Your task to perform on an android device: Clear all items from cart on ebay.com. Image 0: 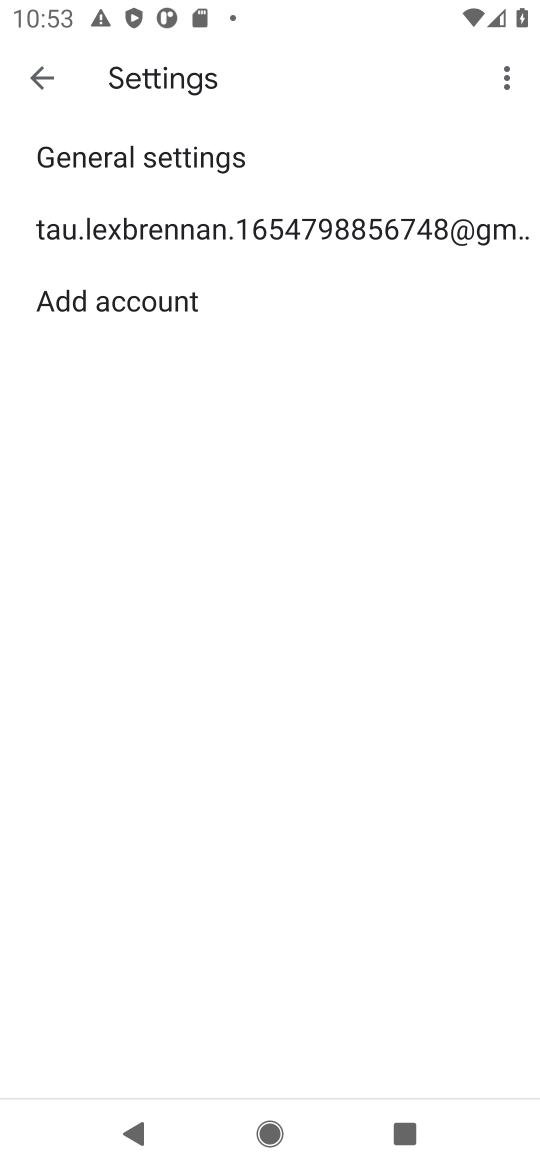
Step 0: press home button
Your task to perform on an android device: Clear all items from cart on ebay.com. Image 1: 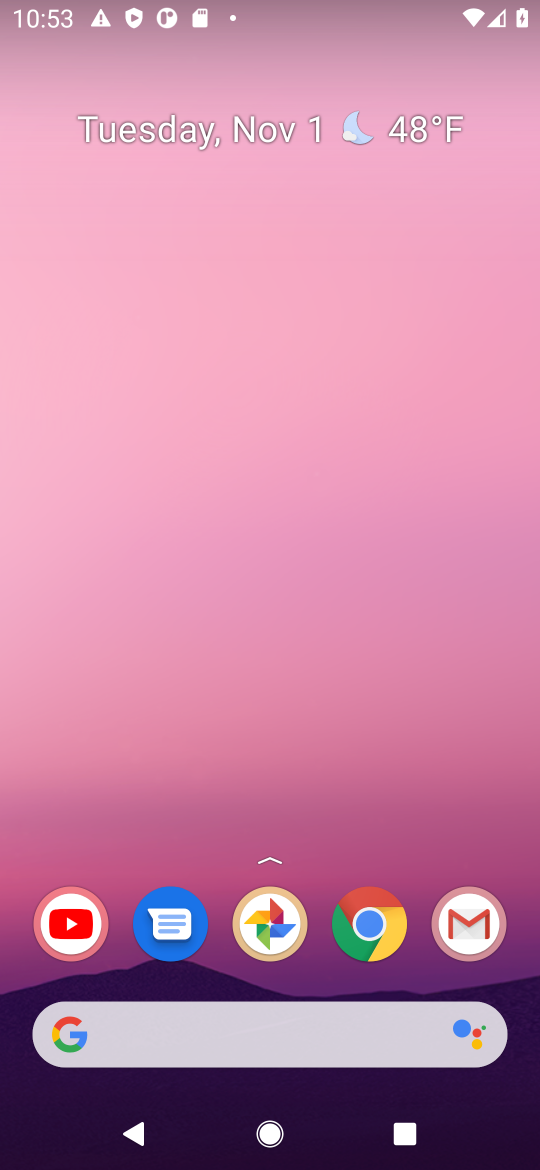
Step 1: click (384, 931)
Your task to perform on an android device: Clear all items from cart on ebay.com. Image 2: 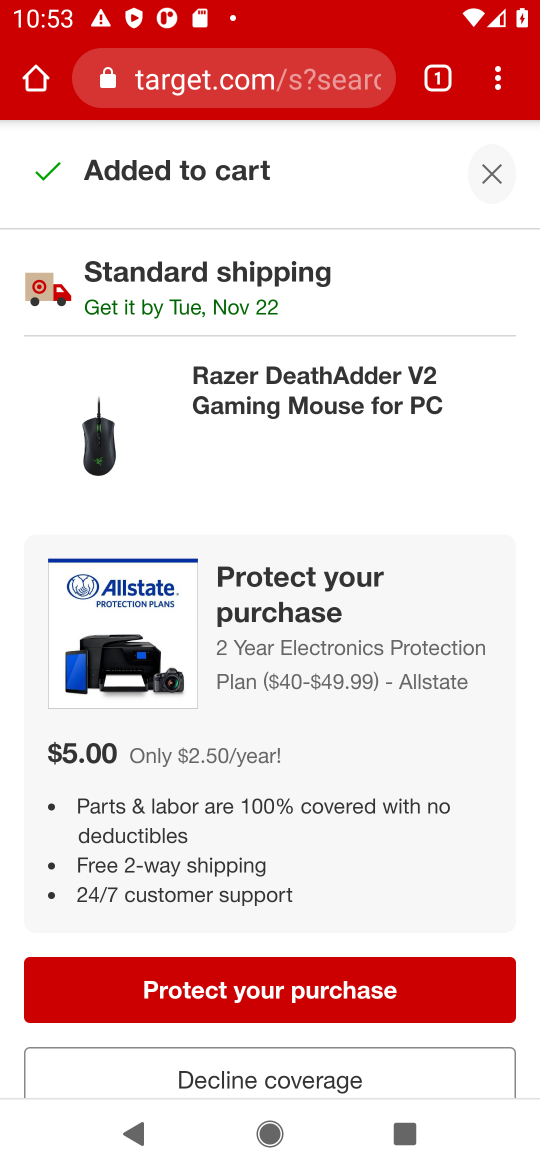
Step 2: click (286, 68)
Your task to perform on an android device: Clear all items from cart on ebay.com. Image 3: 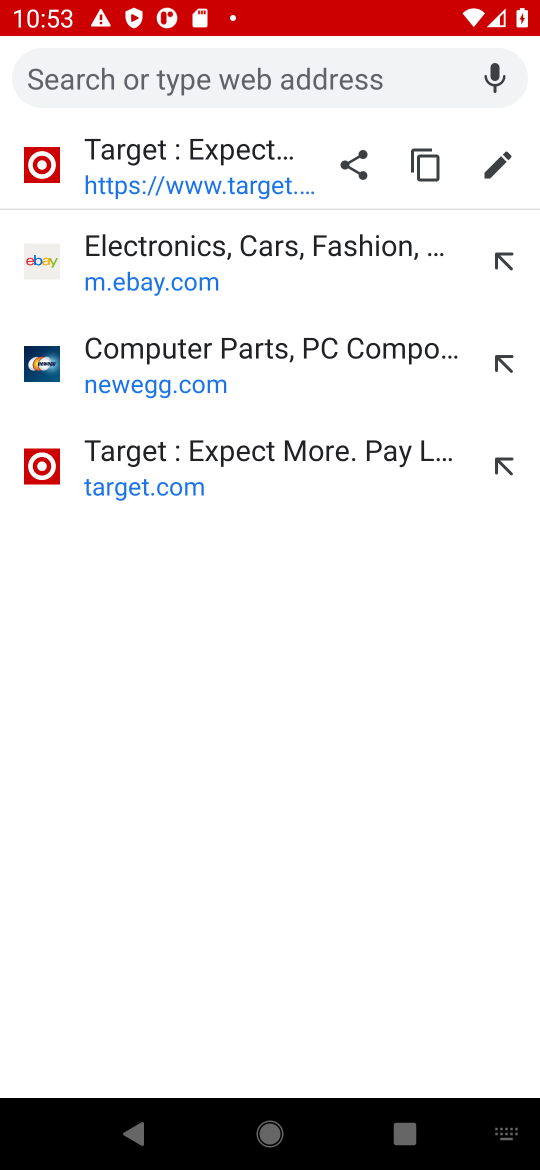
Step 3: type "ebay"
Your task to perform on an android device: Clear all items from cart on ebay.com. Image 4: 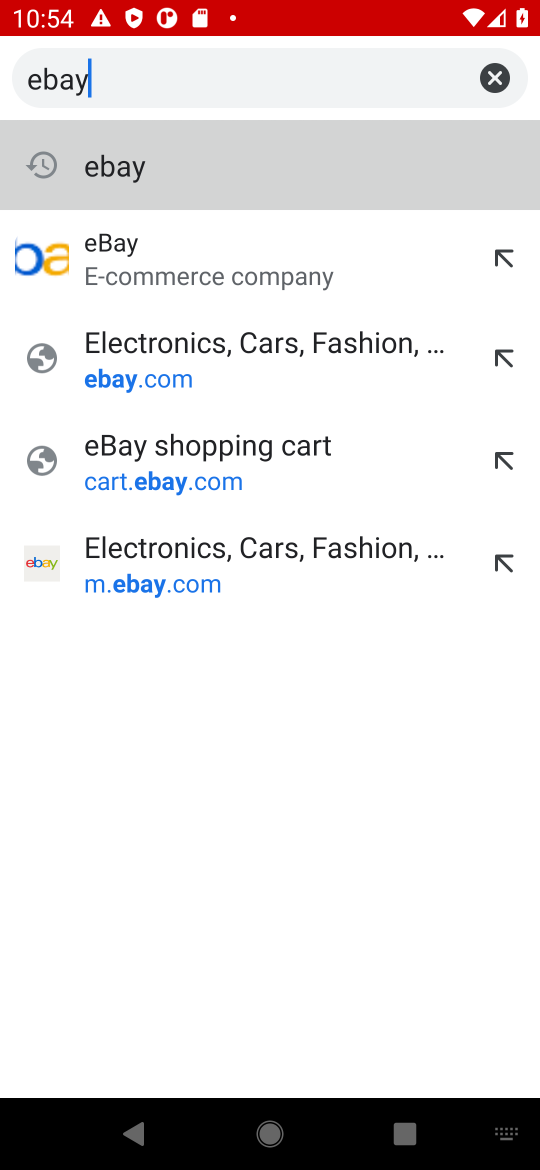
Step 4: click (131, 155)
Your task to perform on an android device: Clear all items from cart on ebay.com. Image 5: 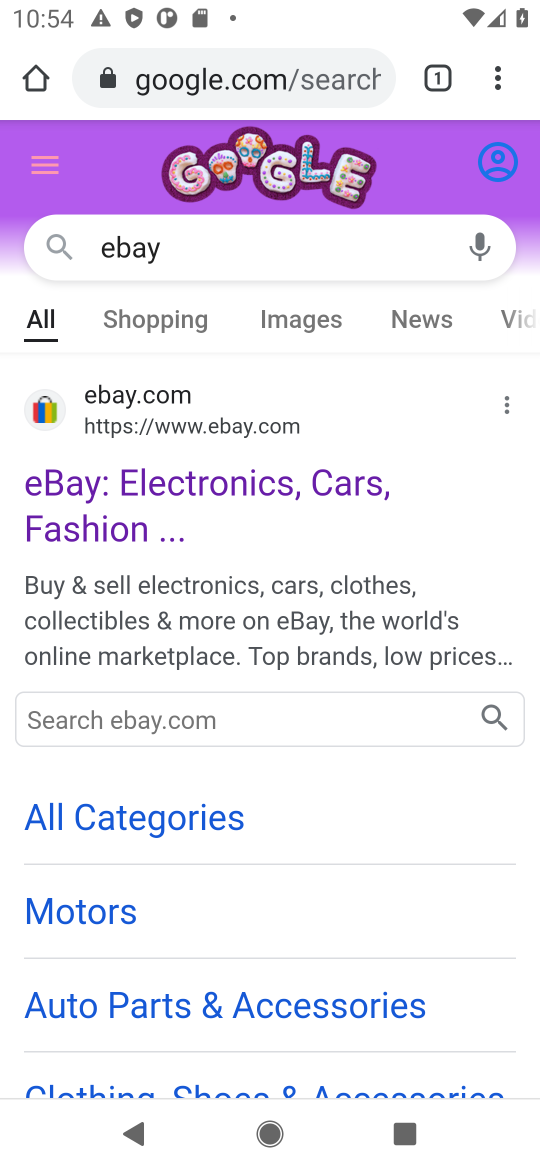
Step 5: click (246, 488)
Your task to perform on an android device: Clear all items from cart on ebay.com. Image 6: 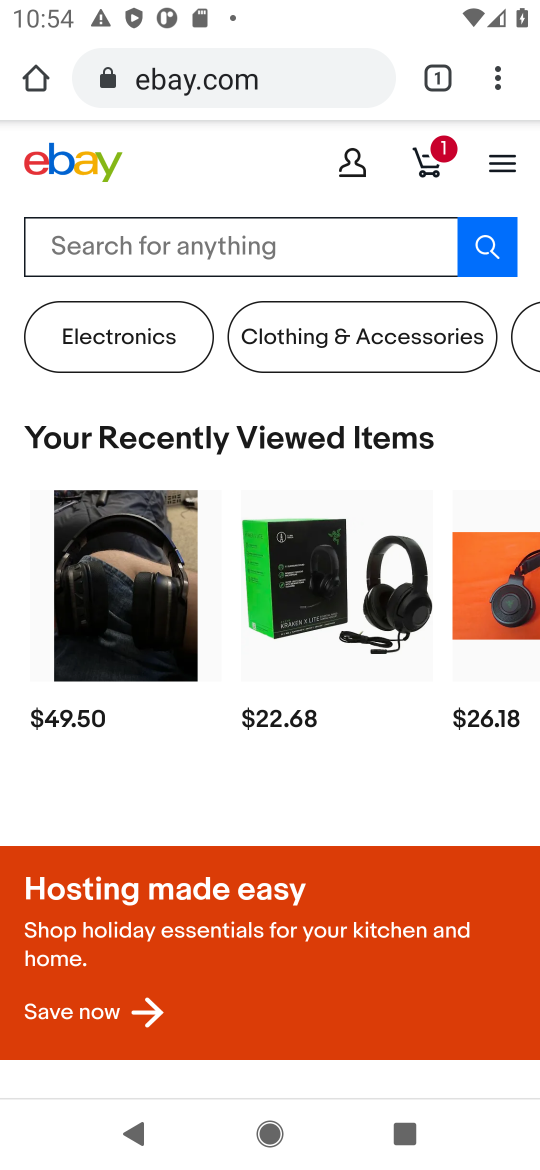
Step 6: click (448, 154)
Your task to perform on an android device: Clear all items from cart on ebay.com. Image 7: 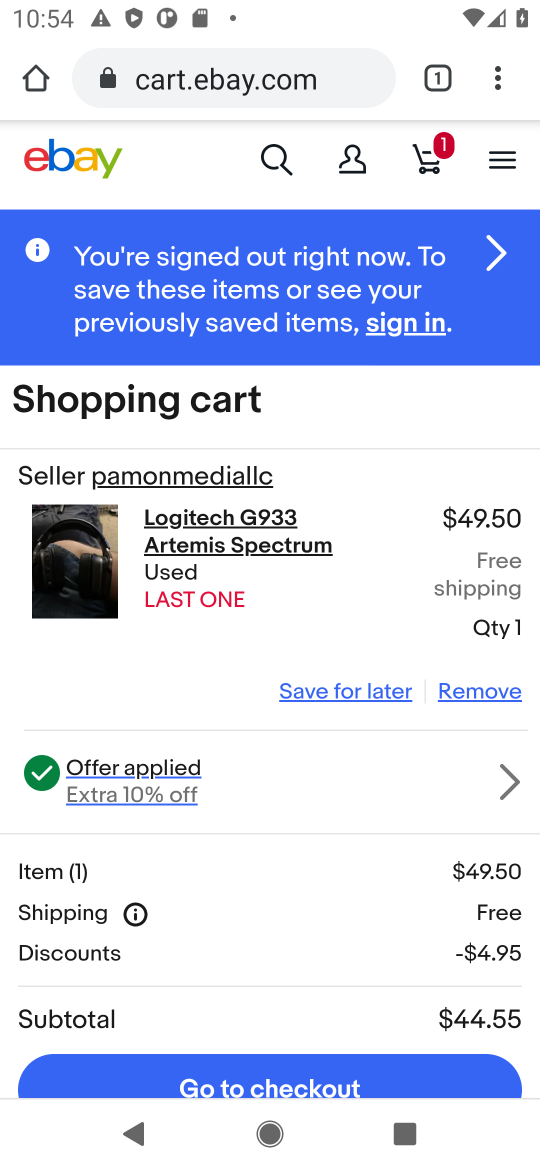
Step 7: click (480, 691)
Your task to perform on an android device: Clear all items from cart on ebay.com. Image 8: 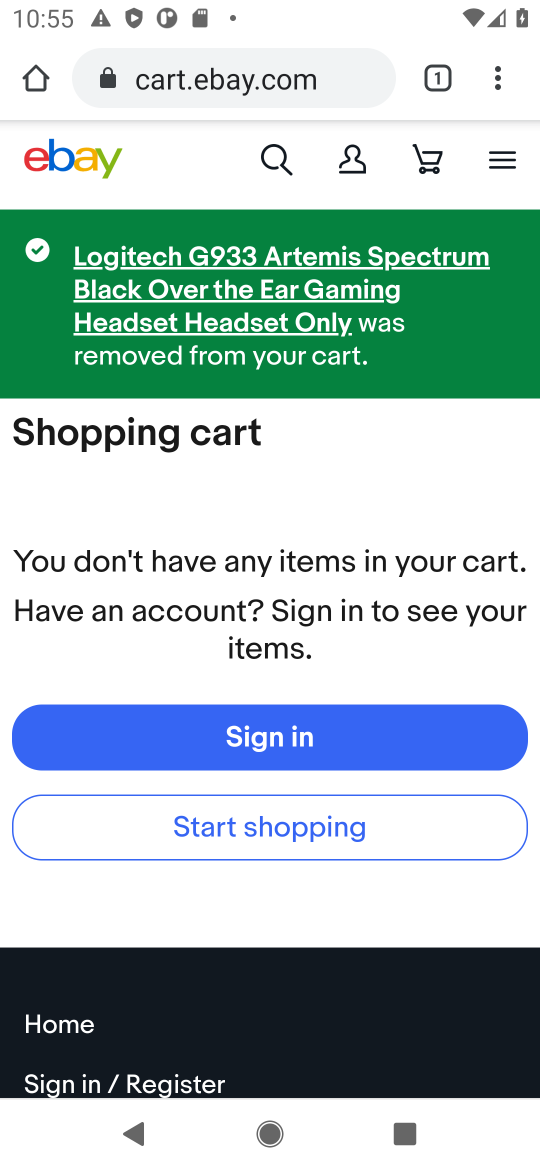
Step 8: task complete